Your task to perform on an android device: Open Chrome and go to the settings page Image 0: 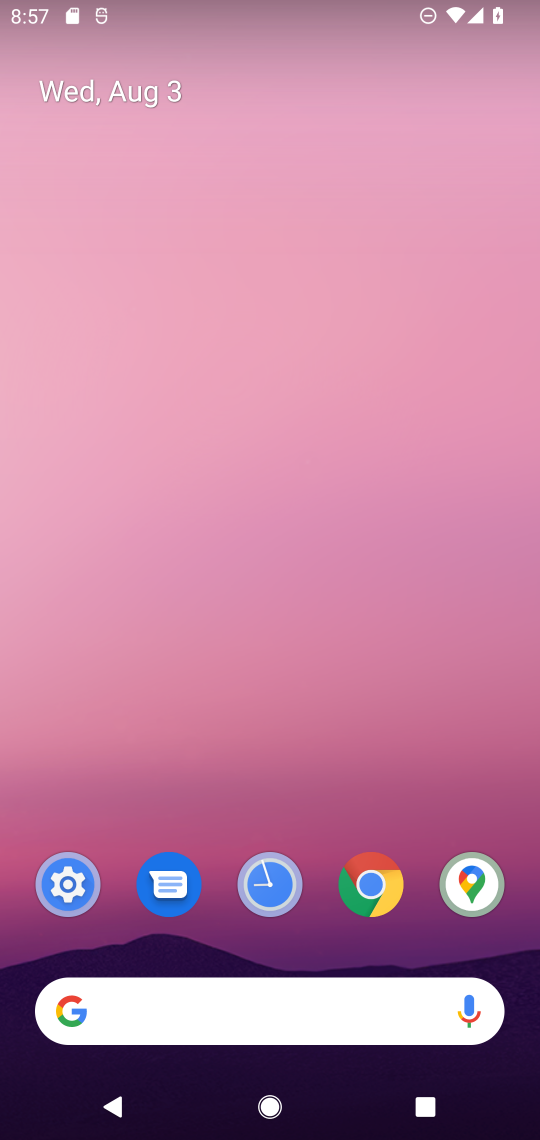
Step 0: click (405, 876)
Your task to perform on an android device: Open Chrome and go to the settings page Image 1: 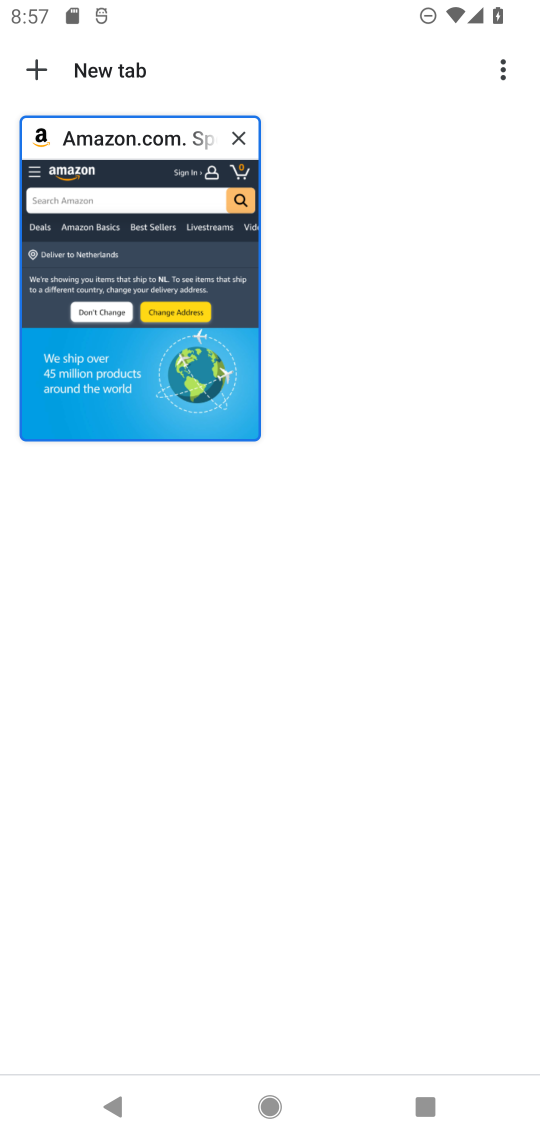
Step 1: click (44, 70)
Your task to perform on an android device: Open Chrome and go to the settings page Image 2: 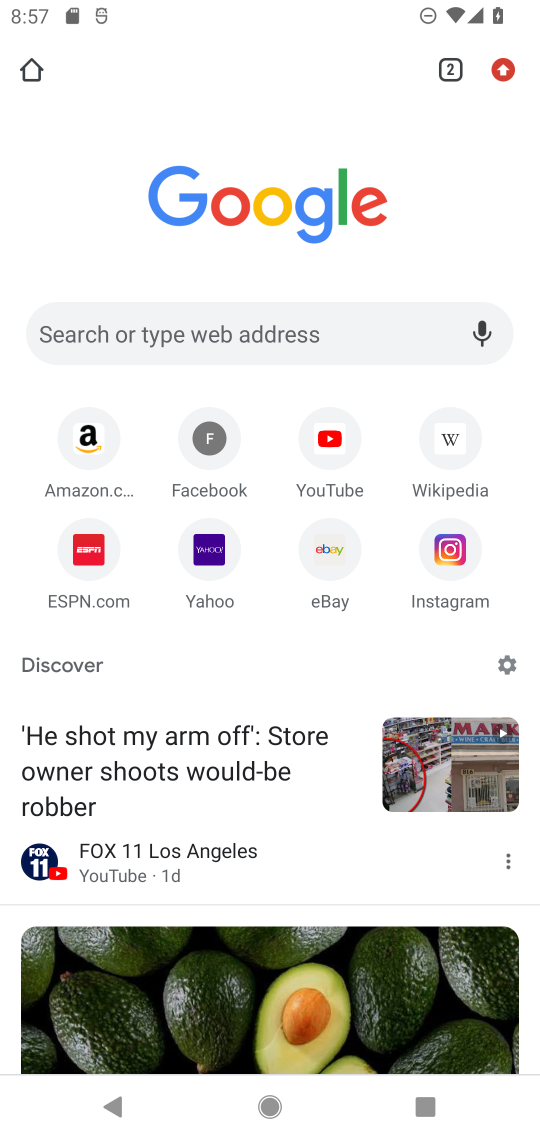
Step 2: click (515, 67)
Your task to perform on an android device: Open Chrome and go to the settings page Image 3: 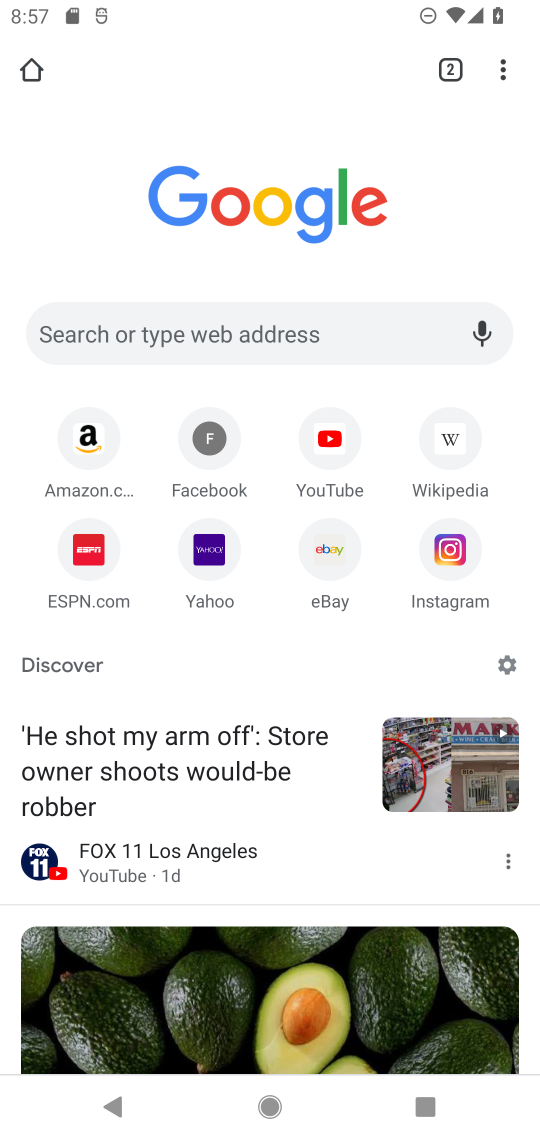
Step 3: click (495, 80)
Your task to perform on an android device: Open Chrome and go to the settings page Image 4: 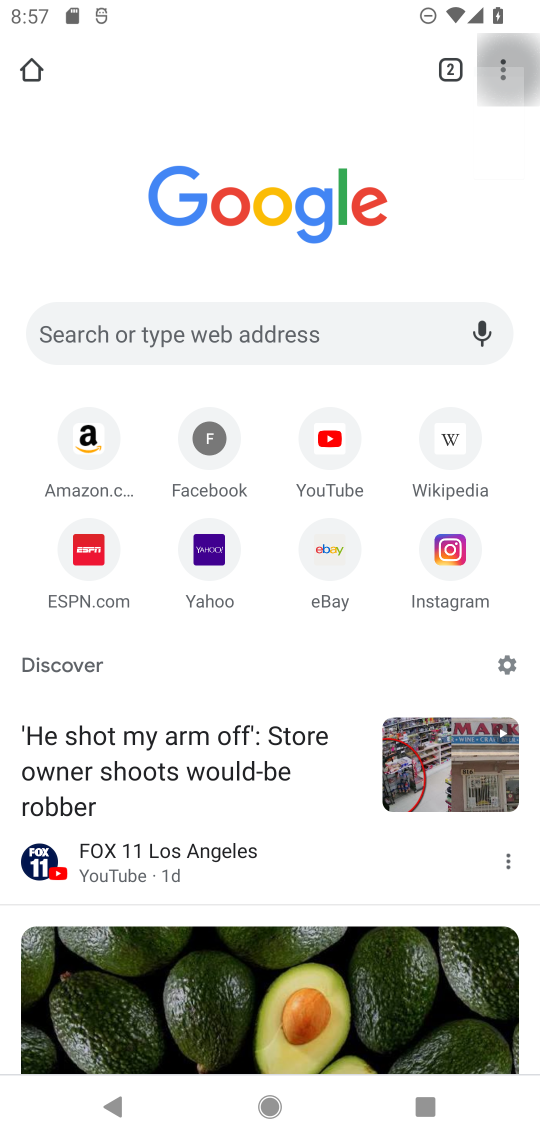
Step 4: click (513, 66)
Your task to perform on an android device: Open Chrome and go to the settings page Image 5: 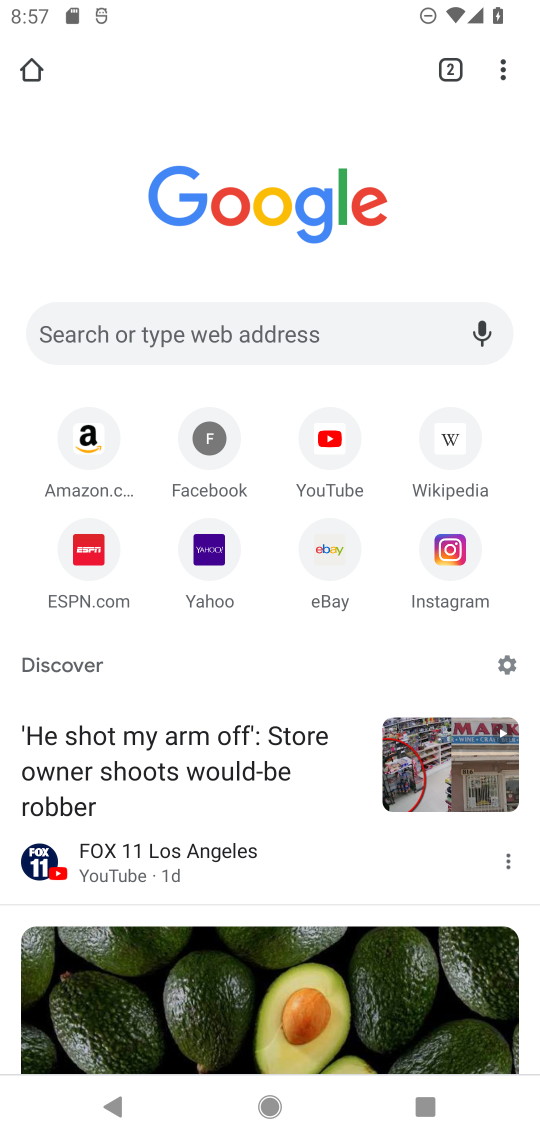
Step 5: click (513, 66)
Your task to perform on an android device: Open Chrome and go to the settings page Image 6: 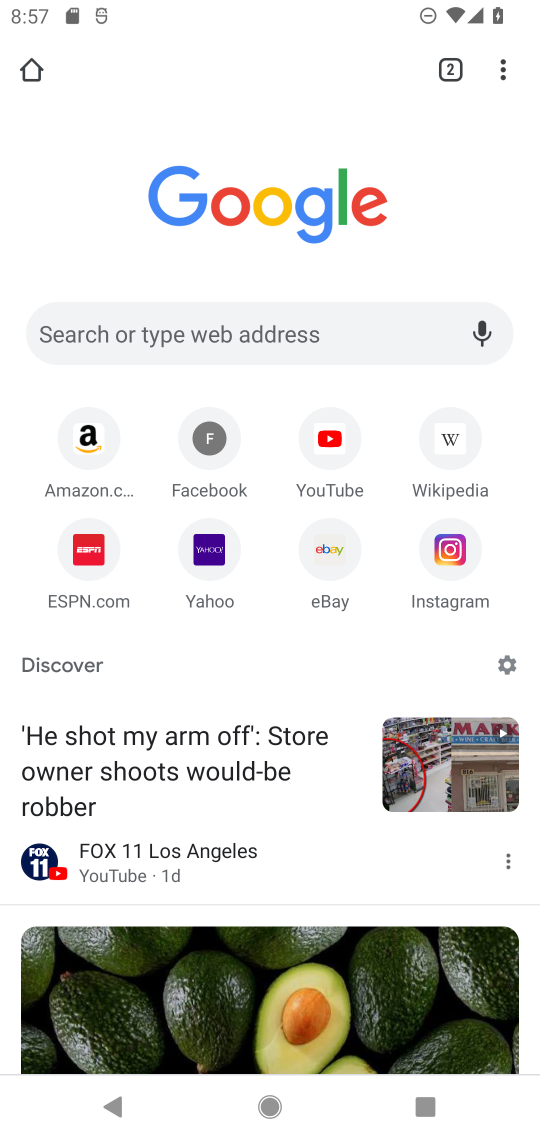
Step 6: click (501, 75)
Your task to perform on an android device: Open Chrome and go to the settings page Image 7: 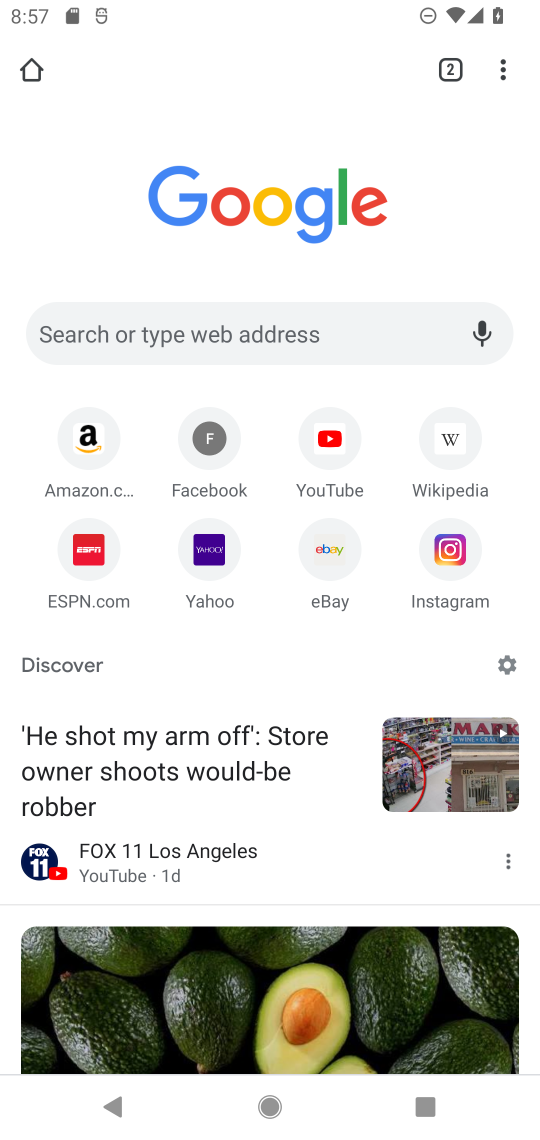
Step 7: click (518, 66)
Your task to perform on an android device: Open Chrome and go to the settings page Image 8: 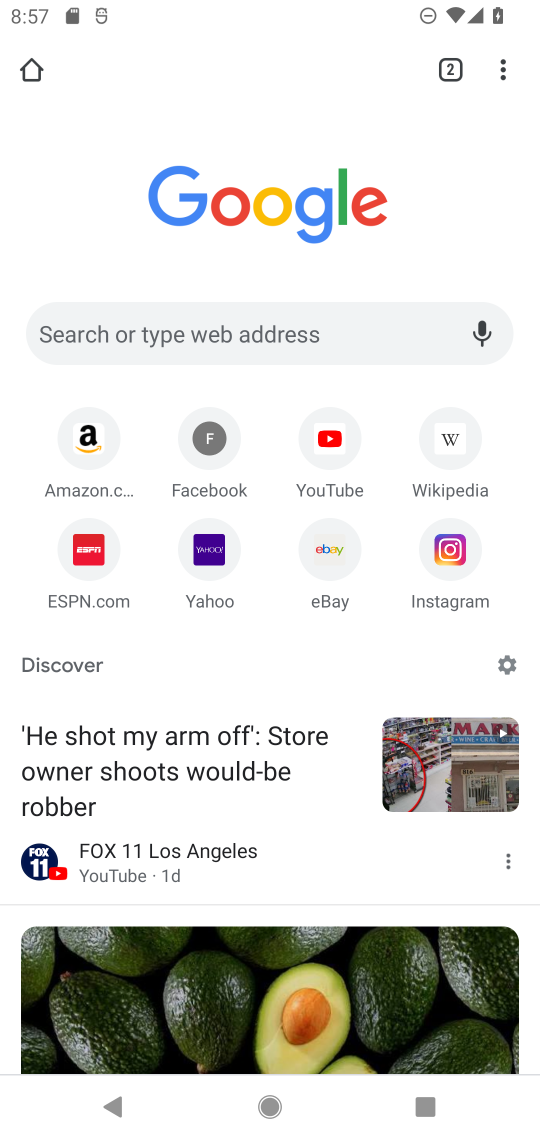
Step 8: task complete